Your task to perform on an android device: check the backup settings in the google photos Image 0: 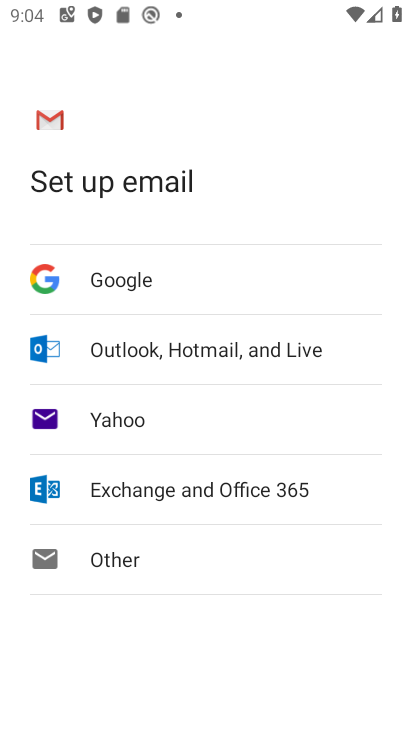
Step 0: press home button
Your task to perform on an android device: check the backup settings in the google photos Image 1: 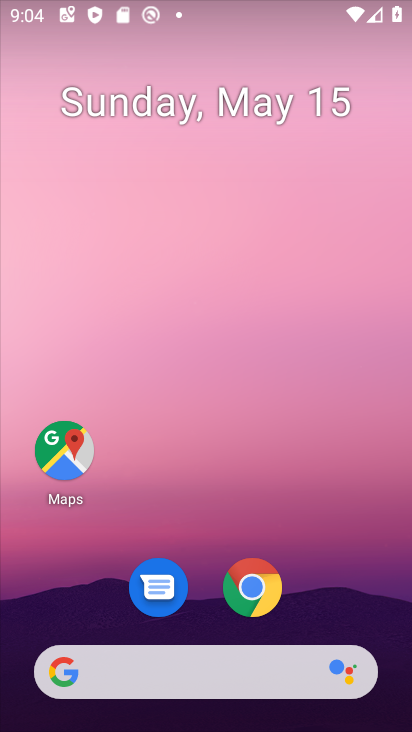
Step 1: drag from (398, 653) to (304, 38)
Your task to perform on an android device: check the backup settings in the google photos Image 2: 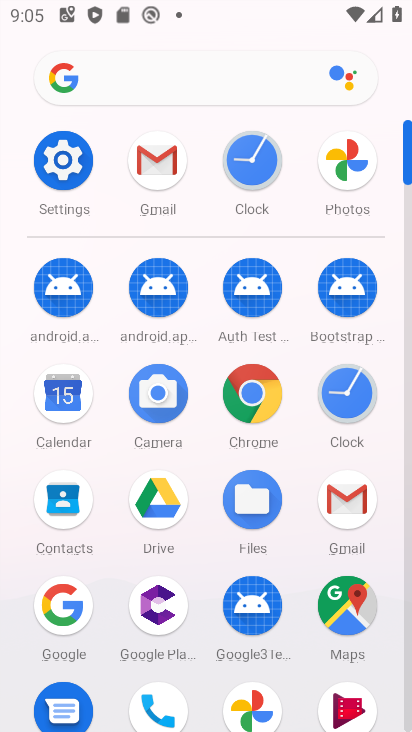
Step 2: click (259, 689)
Your task to perform on an android device: check the backup settings in the google photos Image 3: 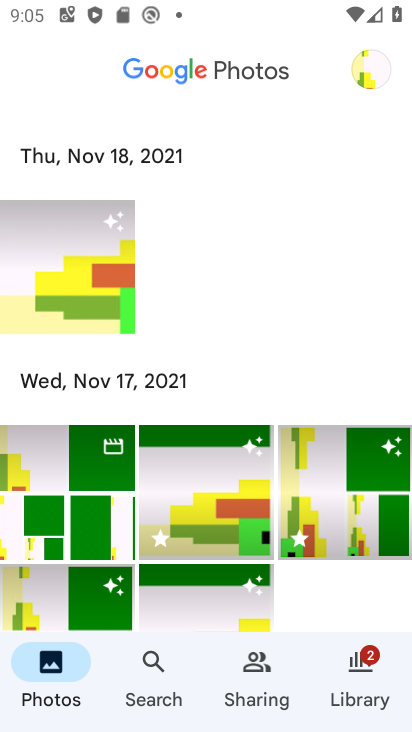
Step 3: click (366, 73)
Your task to perform on an android device: check the backup settings in the google photos Image 4: 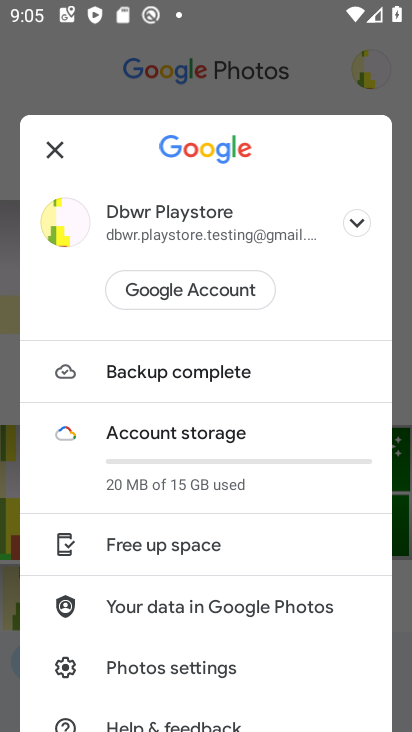
Step 4: click (297, 375)
Your task to perform on an android device: check the backup settings in the google photos Image 5: 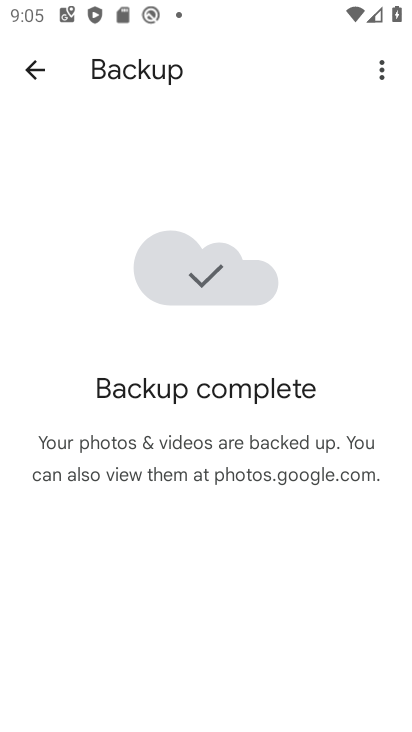
Step 5: task complete